Your task to perform on an android device: find photos in the google photos app Image 0: 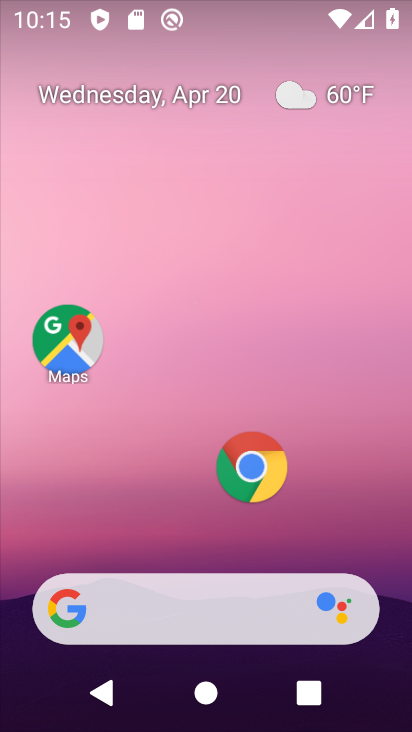
Step 0: drag from (307, 526) to (340, 103)
Your task to perform on an android device: find photos in the google photos app Image 1: 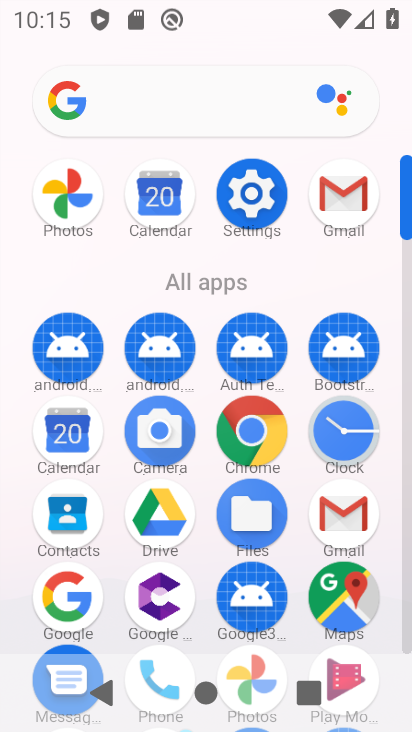
Step 1: click (61, 195)
Your task to perform on an android device: find photos in the google photos app Image 2: 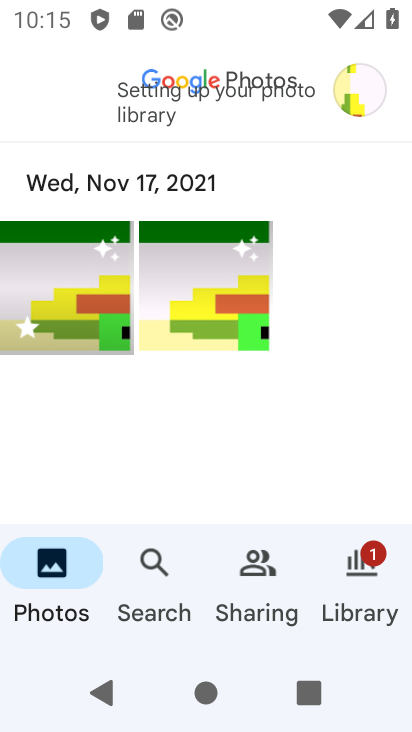
Step 2: task complete